Your task to perform on an android device: Turn on the flashlight Image 0: 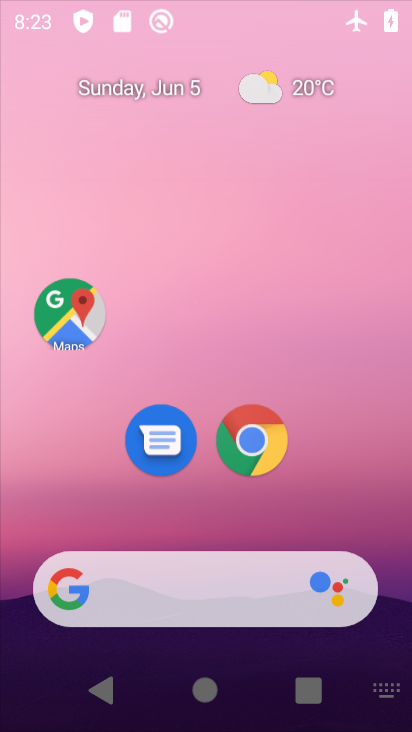
Step 0: drag from (202, 499) to (185, 165)
Your task to perform on an android device: Turn on the flashlight Image 1: 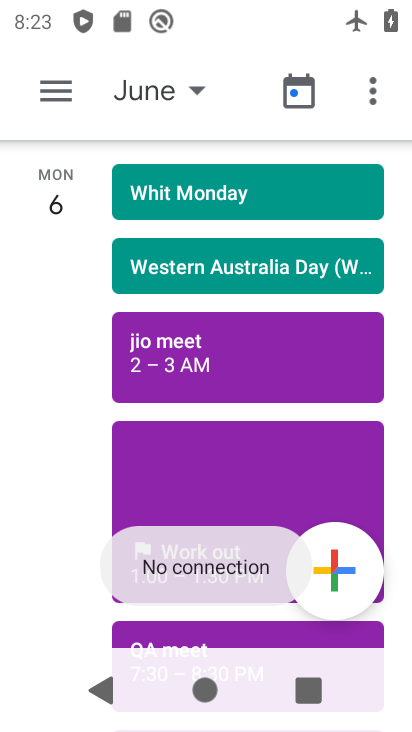
Step 1: press home button
Your task to perform on an android device: Turn on the flashlight Image 2: 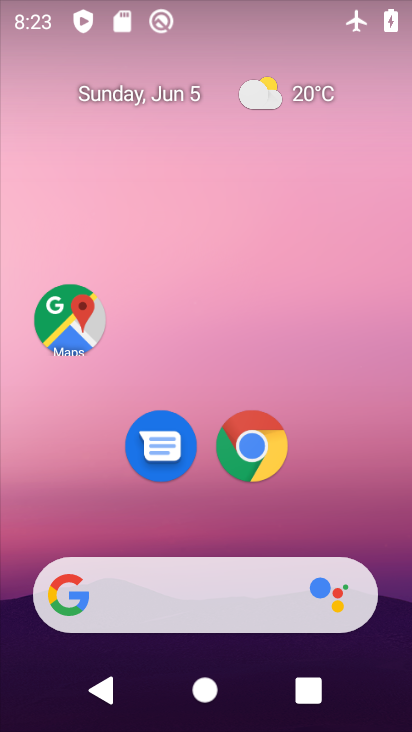
Step 2: drag from (205, 510) to (211, 143)
Your task to perform on an android device: Turn on the flashlight Image 3: 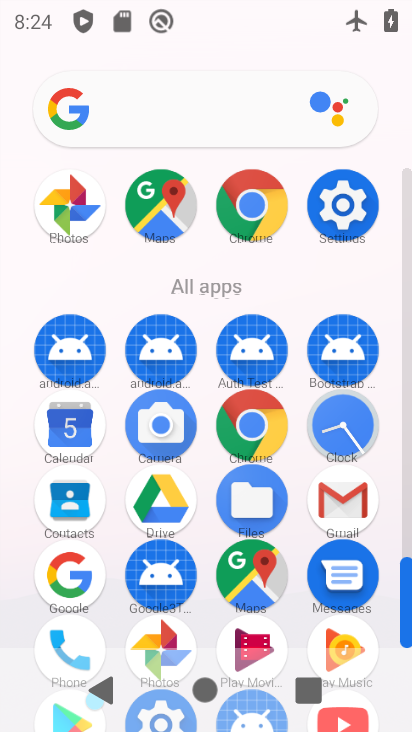
Step 3: click (367, 199)
Your task to perform on an android device: Turn on the flashlight Image 4: 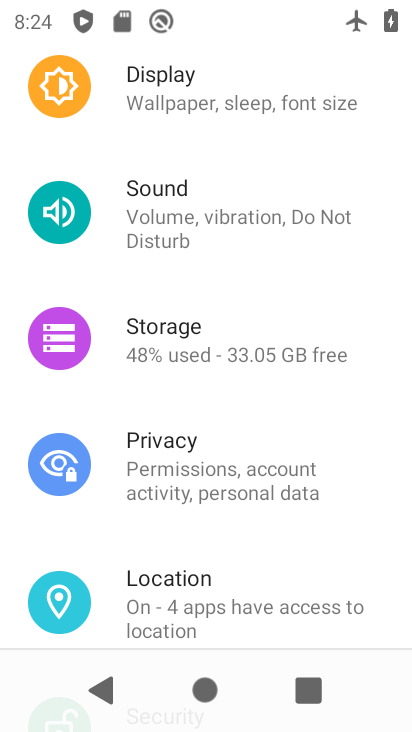
Step 4: task complete